Your task to perform on an android device: Open Google Maps and go to "Timeline" Image 0: 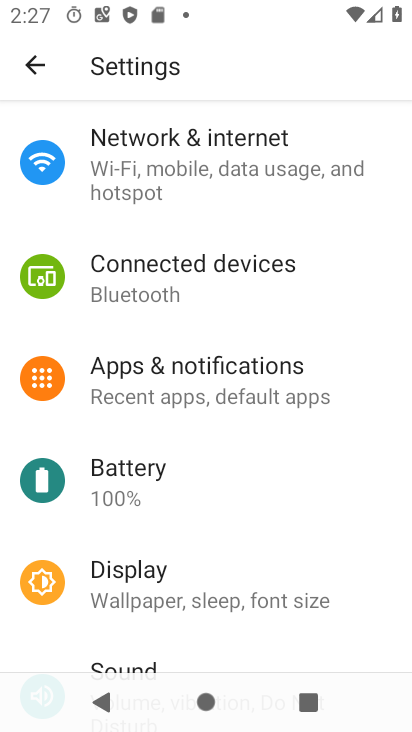
Step 0: press home button
Your task to perform on an android device: Open Google Maps and go to "Timeline" Image 1: 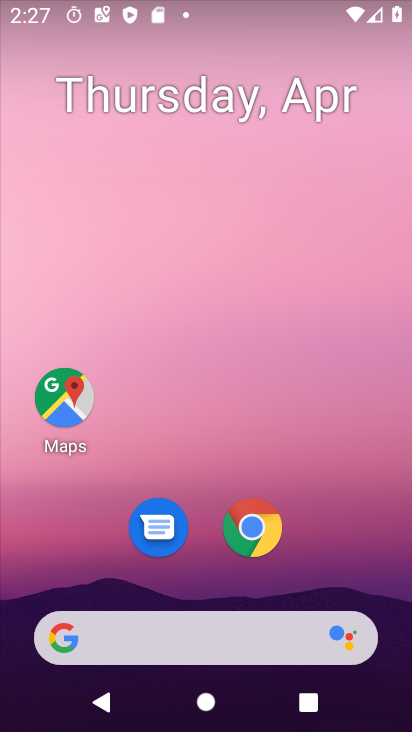
Step 1: click (69, 398)
Your task to perform on an android device: Open Google Maps and go to "Timeline" Image 2: 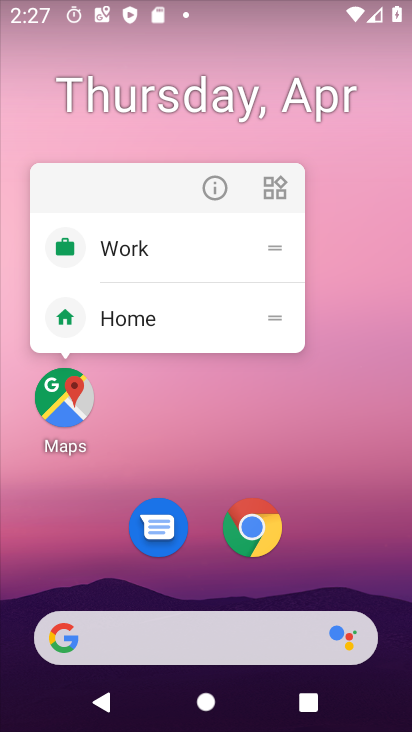
Step 2: click (70, 402)
Your task to perform on an android device: Open Google Maps and go to "Timeline" Image 3: 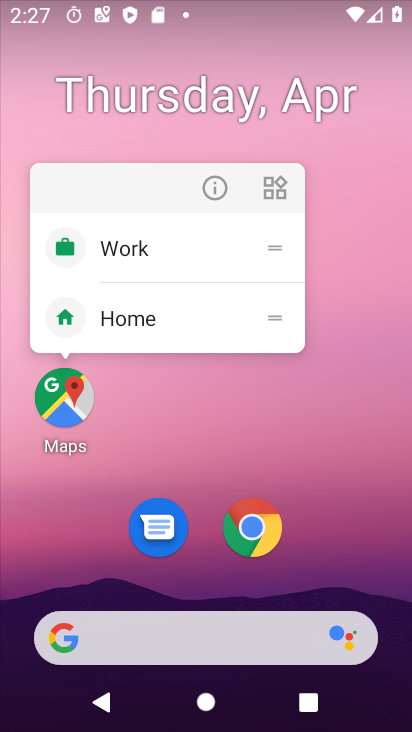
Step 3: click (44, 407)
Your task to perform on an android device: Open Google Maps and go to "Timeline" Image 4: 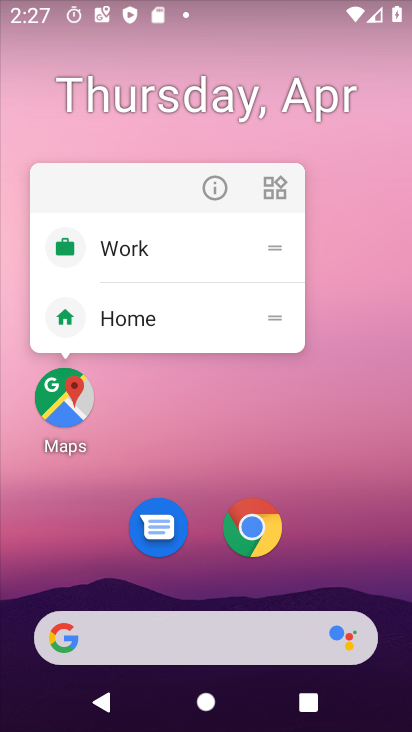
Step 4: click (58, 407)
Your task to perform on an android device: Open Google Maps and go to "Timeline" Image 5: 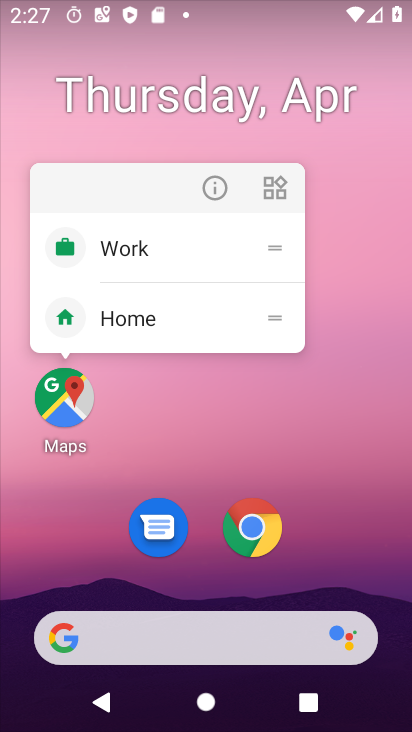
Step 5: click (200, 401)
Your task to perform on an android device: Open Google Maps and go to "Timeline" Image 6: 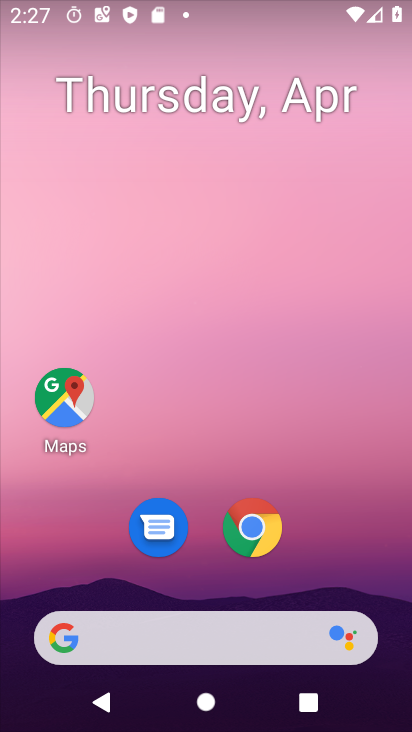
Step 6: click (68, 411)
Your task to perform on an android device: Open Google Maps and go to "Timeline" Image 7: 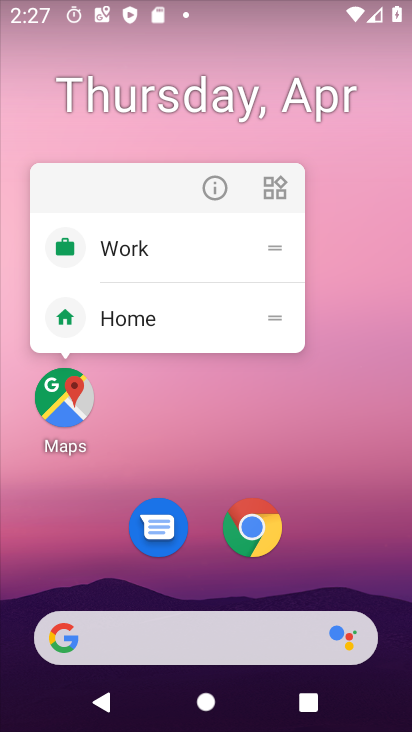
Step 7: click (69, 409)
Your task to perform on an android device: Open Google Maps and go to "Timeline" Image 8: 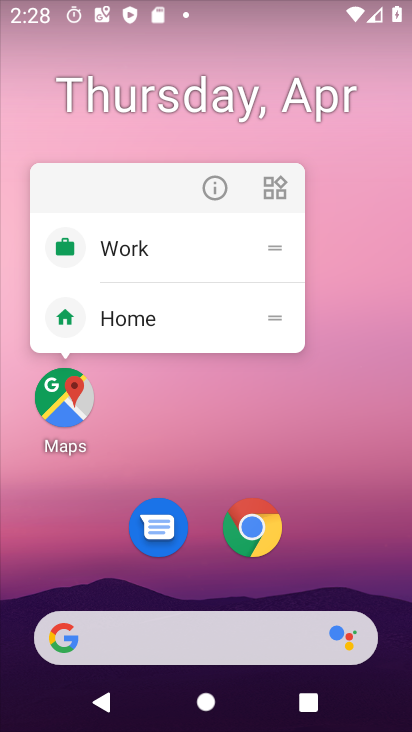
Step 8: click (65, 389)
Your task to perform on an android device: Open Google Maps and go to "Timeline" Image 9: 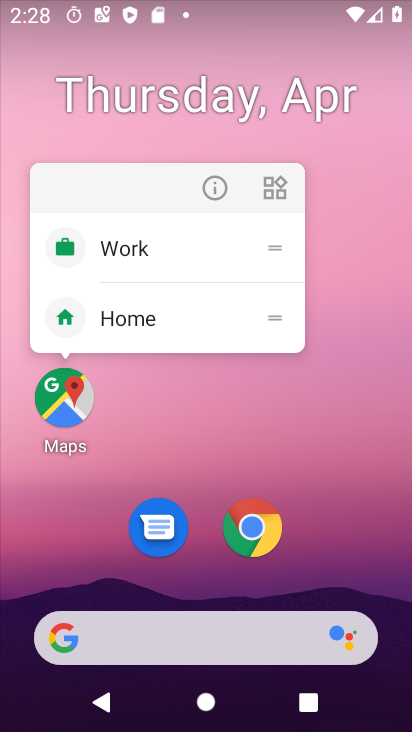
Step 9: click (321, 346)
Your task to perform on an android device: Open Google Maps and go to "Timeline" Image 10: 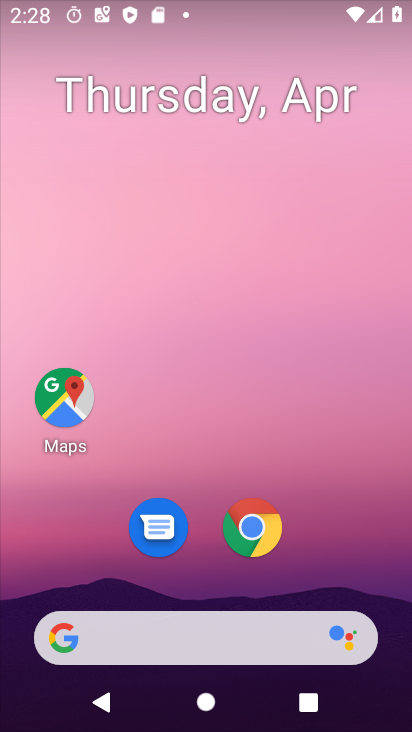
Step 10: drag from (344, 547) to (378, 99)
Your task to perform on an android device: Open Google Maps and go to "Timeline" Image 11: 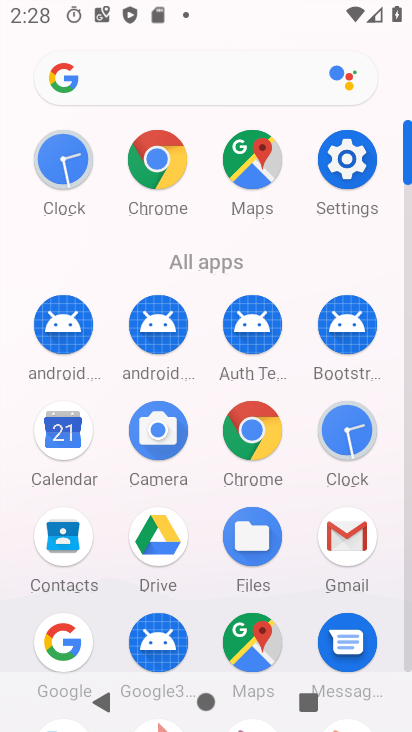
Step 11: click (254, 641)
Your task to perform on an android device: Open Google Maps and go to "Timeline" Image 12: 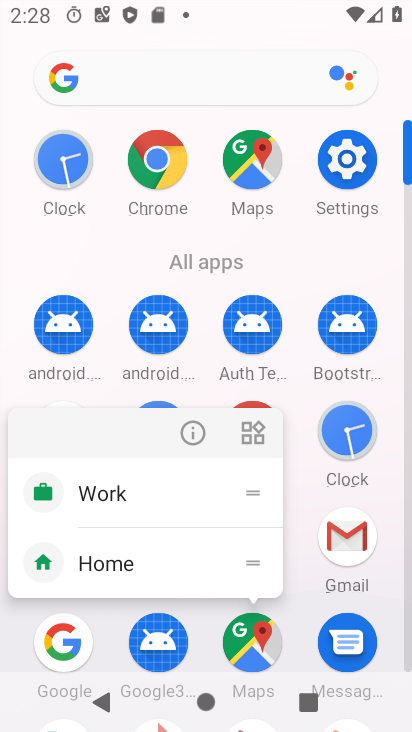
Step 12: click (257, 650)
Your task to perform on an android device: Open Google Maps and go to "Timeline" Image 13: 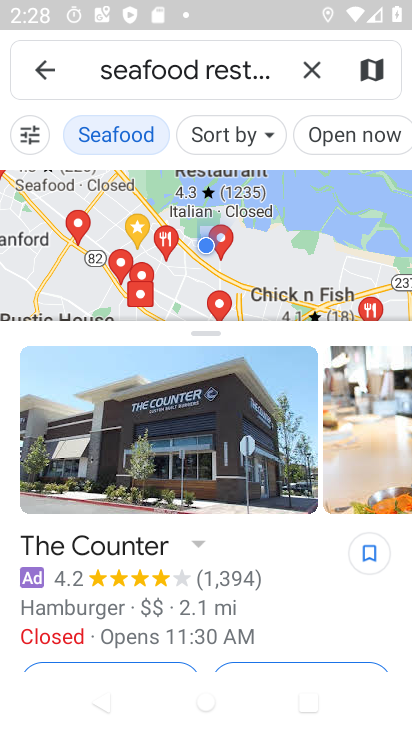
Step 13: click (41, 72)
Your task to perform on an android device: Open Google Maps and go to "Timeline" Image 14: 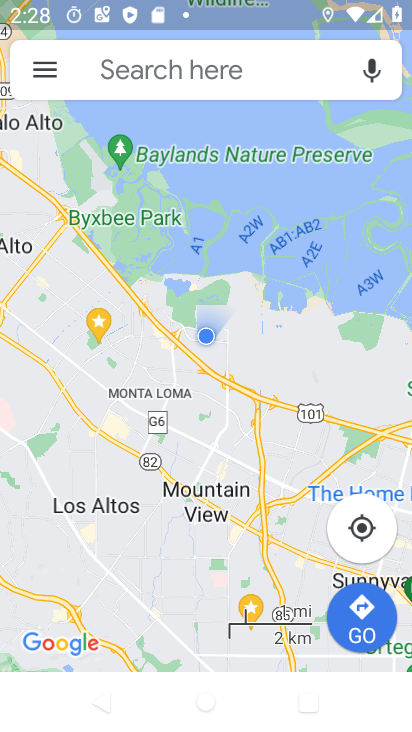
Step 14: click (42, 72)
Your task to perform on an android device: Open Google Maps and go to "Timeline" Image 15: 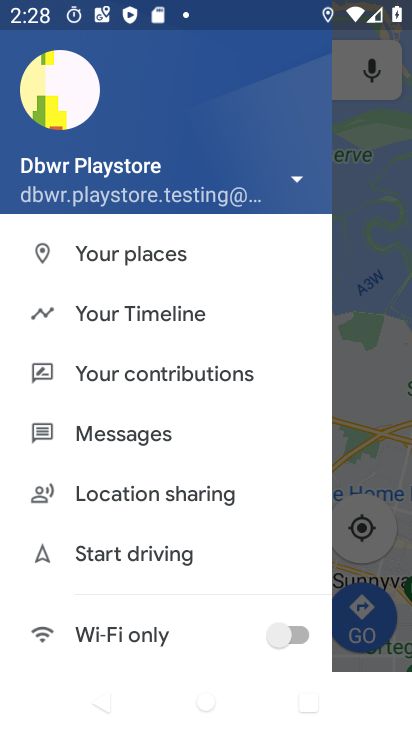
Step 15: click (102, 317)
Your task to perform on an android device: Open Google Maps and go to "Timeline" Image 16: 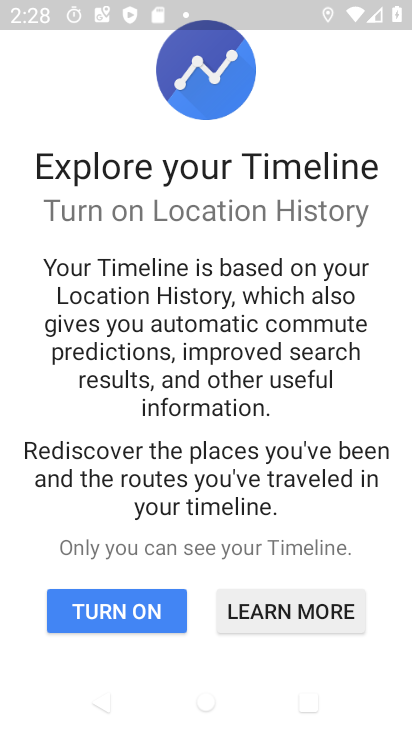
Step 16: click (119, 610)
Your task to perform on an android device: Open Google Maps and go to "Timeline" Image 17: 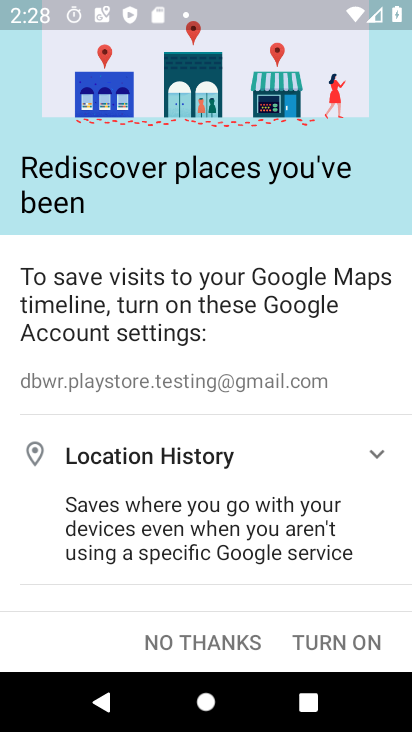
Step 17: click (214, 645)
Your task to perform on an android device: Open Google Maps and go to "Timeline" Image 18: 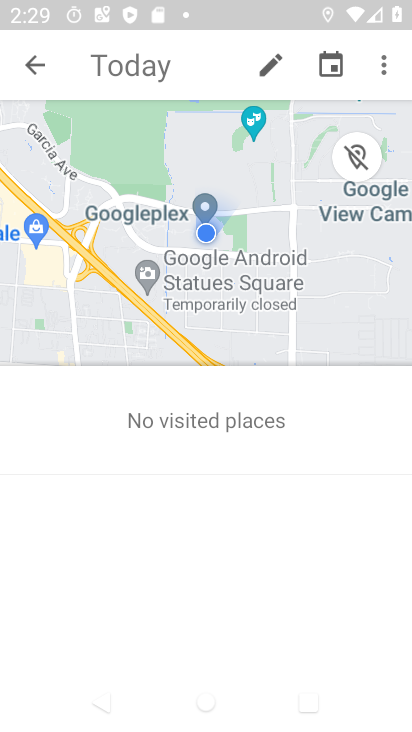
Step 18: task complete